Your task to perform on an android device: Clear the shopping cart on newegg. Add apple airpods pro to the cart on newegg, then select checkout. Image 0: 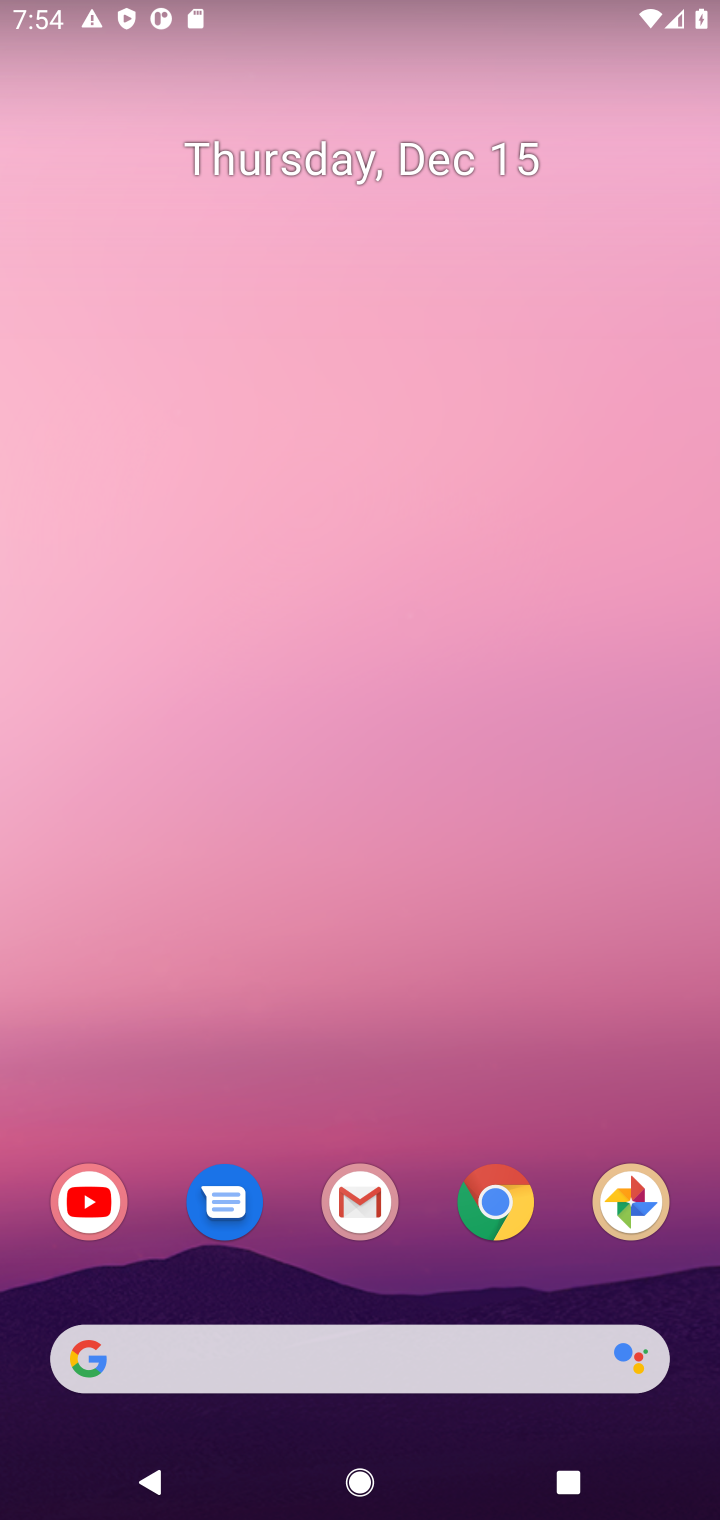
Step 0: click (498, 1208)
Your task to perform on an android device: Clear the shopping cart on newegg. Add apple airpods pro to the cart on newegg, then select checkout. Image 1: 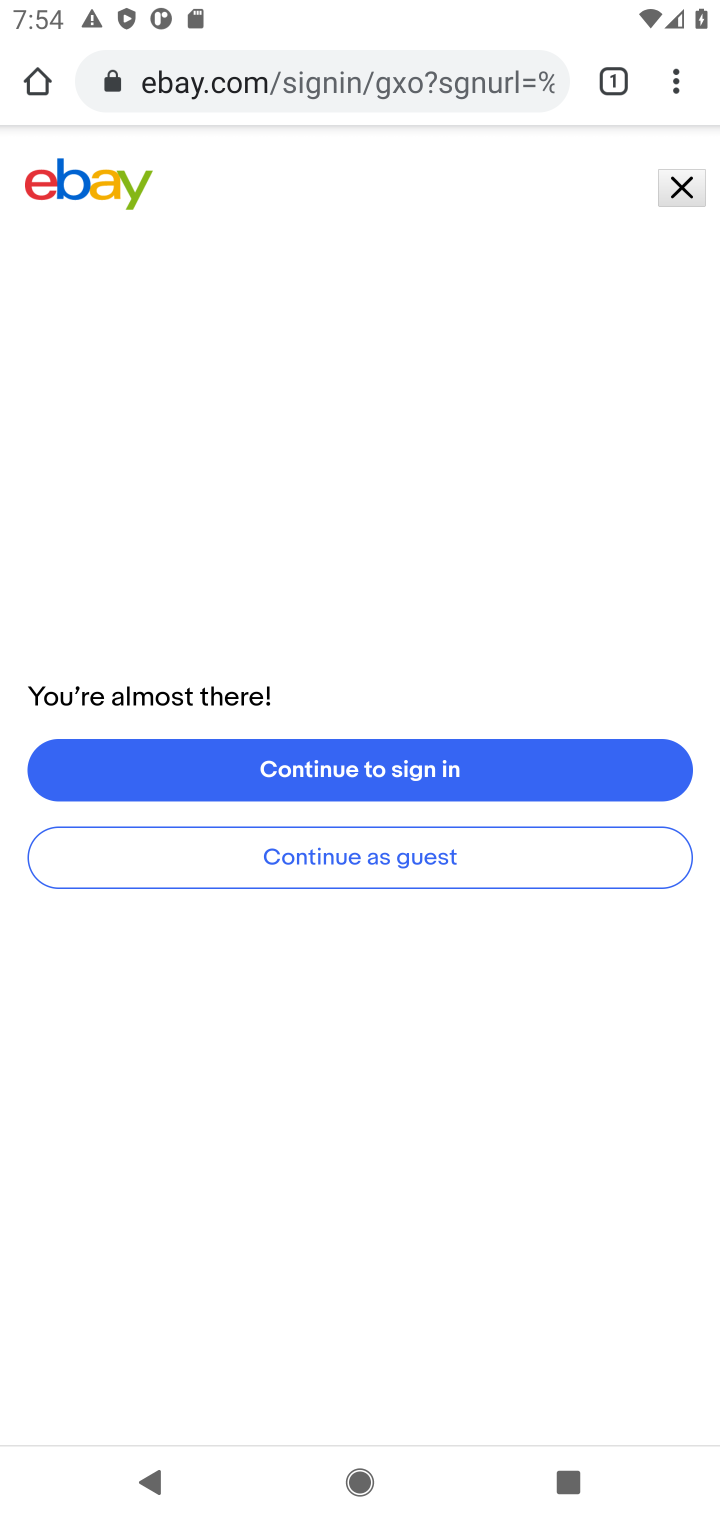
Step 1: click (191, 82)
Your task to perform on an android device: Clear the shopping cart on newegg. Add apple airpods pro to the cart on newegg, then select checkout. Image 2: 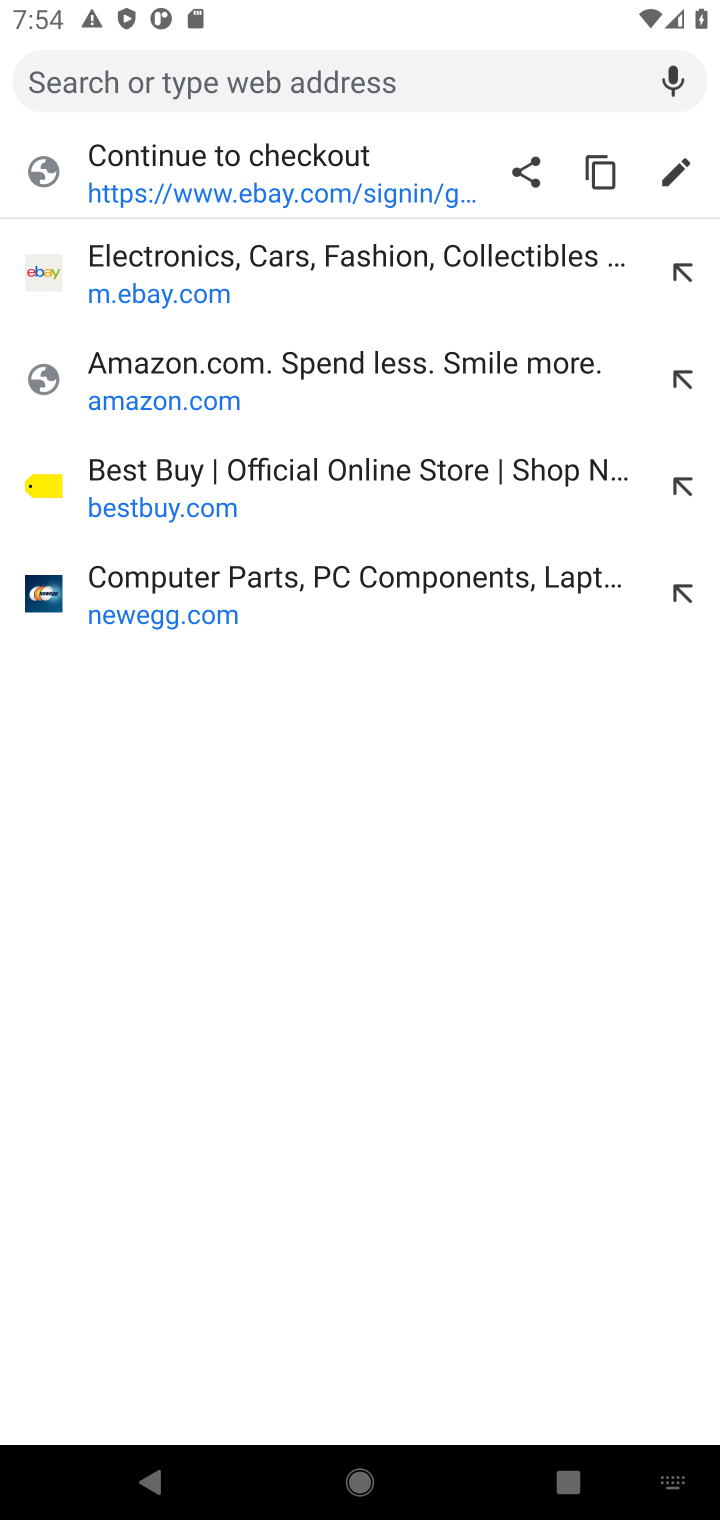
Step 2: click (167, 584)
Your task to perform on an android device: Clear the shopping cart on newegg. Add apple airpods pro to the cart on newegg, then select checkout. Image 3: 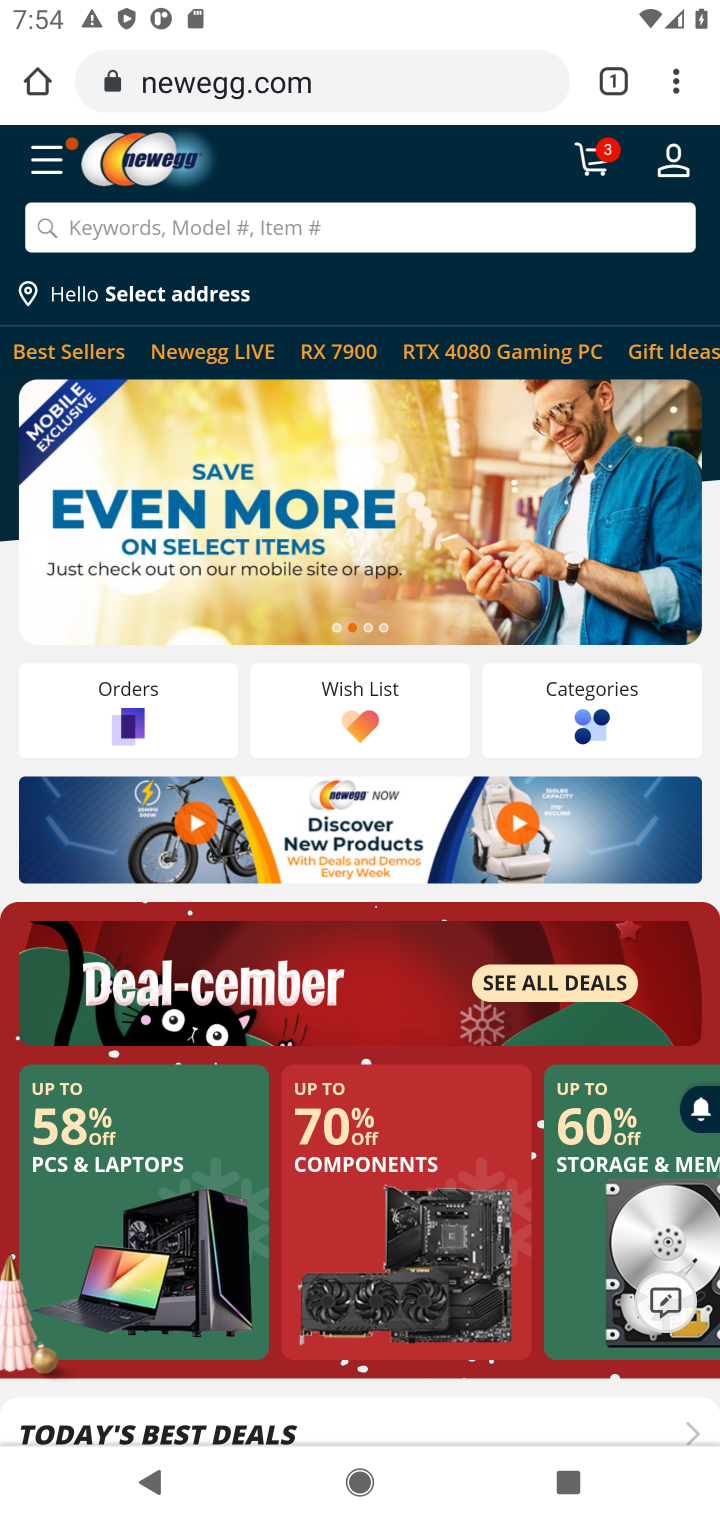
Step 3: click (605, 166)
Your task to perform on an android device: Clear the shopping cart on newegg. Add apple airpods pro to the cart on newegg, then select checkout. Image 4: 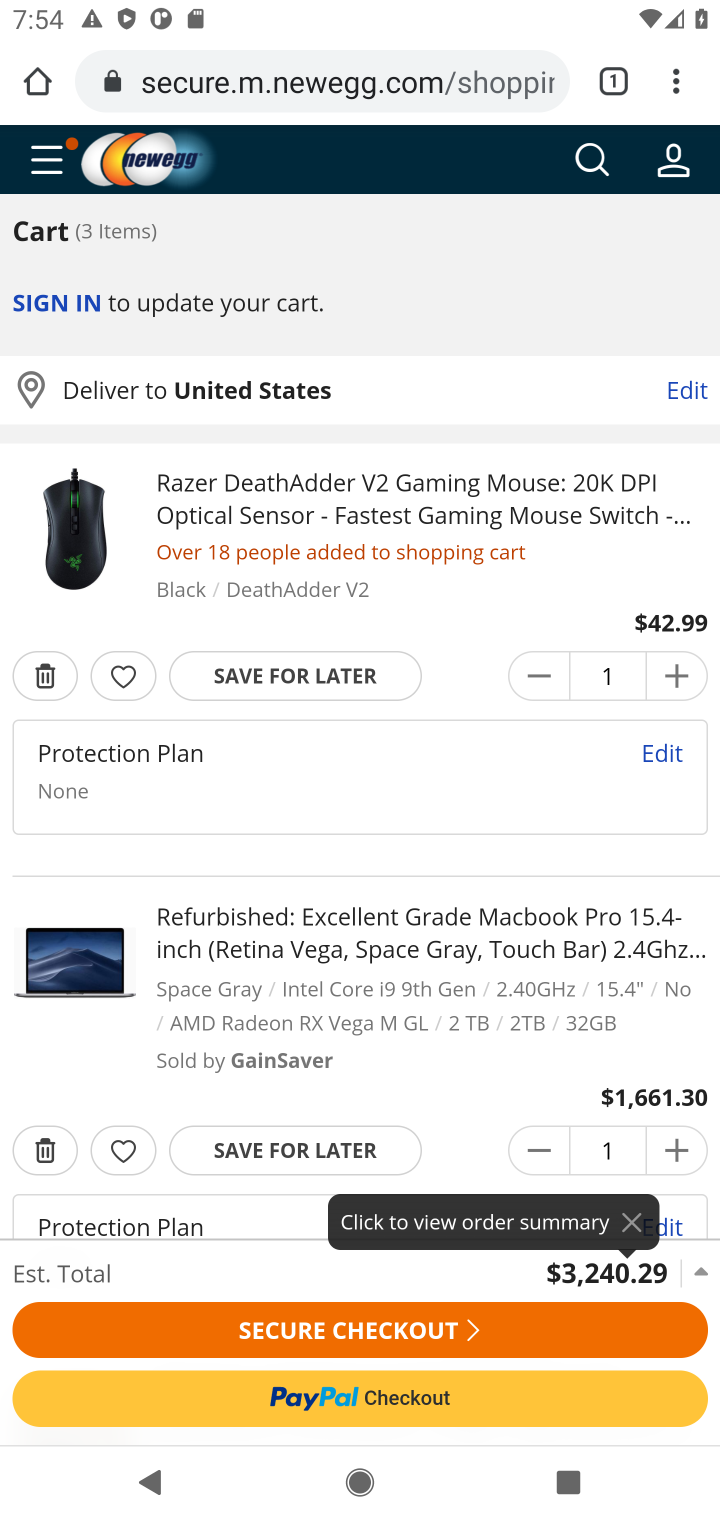
Step 4: click (50, 668)
Your task to perform on an android device: Clear the shopping cart on newegg. Add apple airpods pro to the cart on newegg, then select checkout. Image 5: 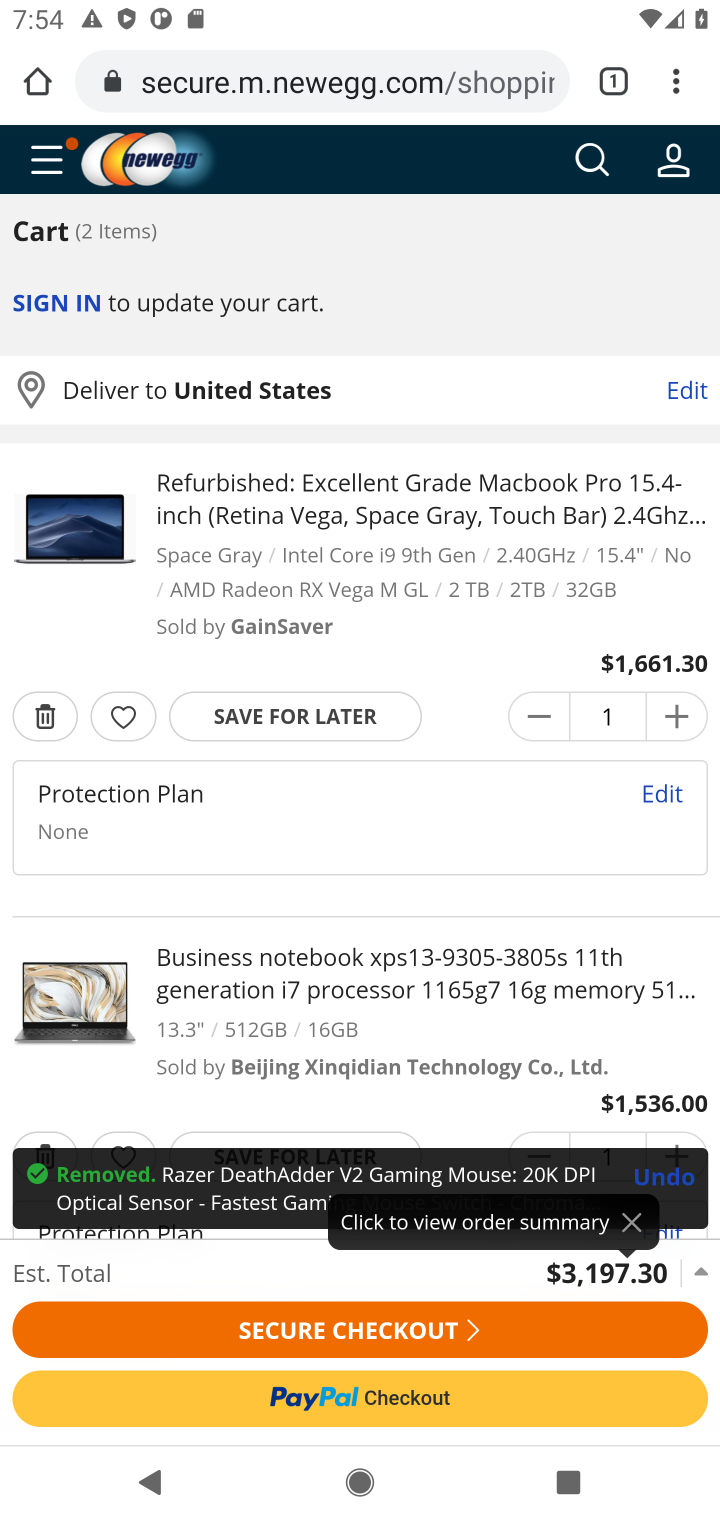
Step 5: click (42, 717)
Your task to perform on an android device: Clear the shopping cart on newegg. Add apple airpods pro to the cart on newegg, then select checkout. Image 6: 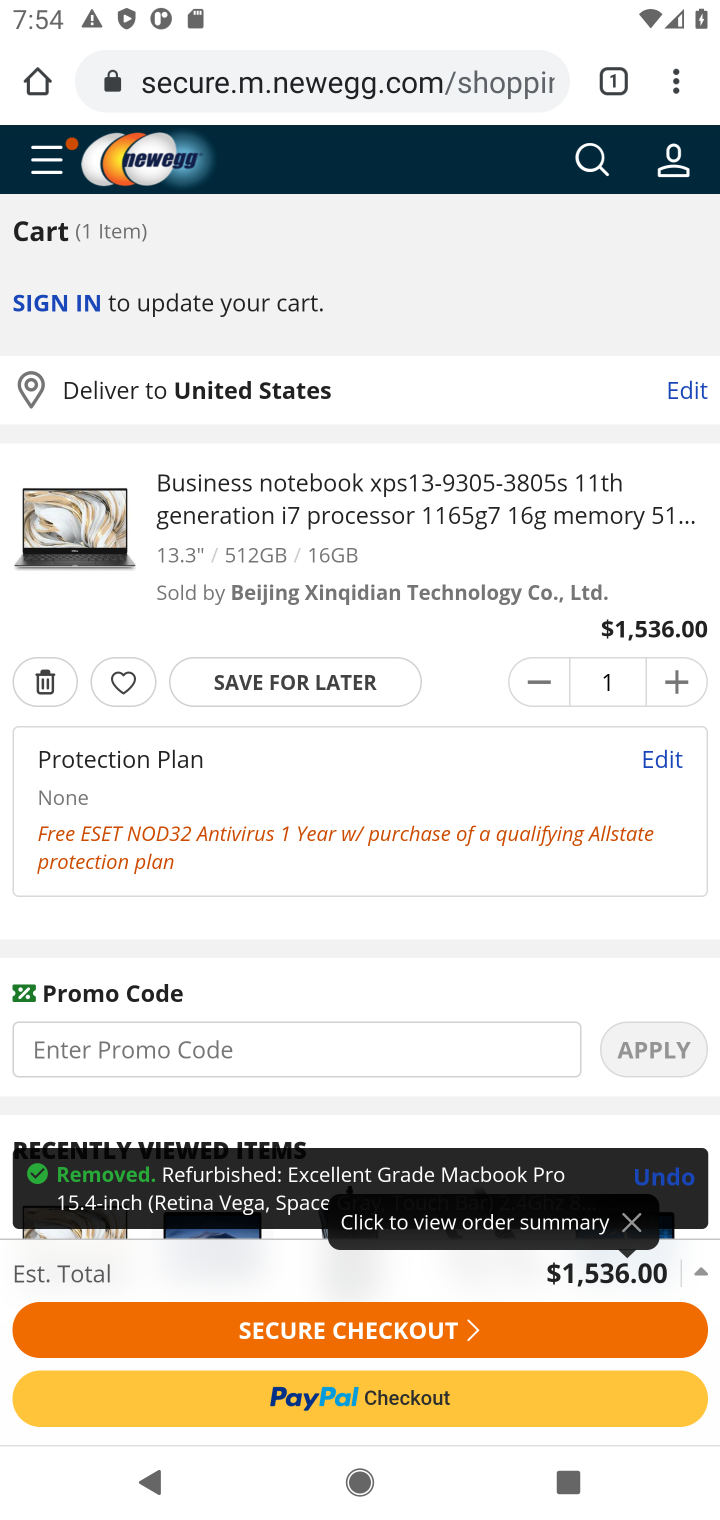
Step 6: click (42, 684)
Your task to perform on an android device: Clear the shopping cart on newegg. Add apple airpods pro to the cart on newegg, then select checkout. Image 7: 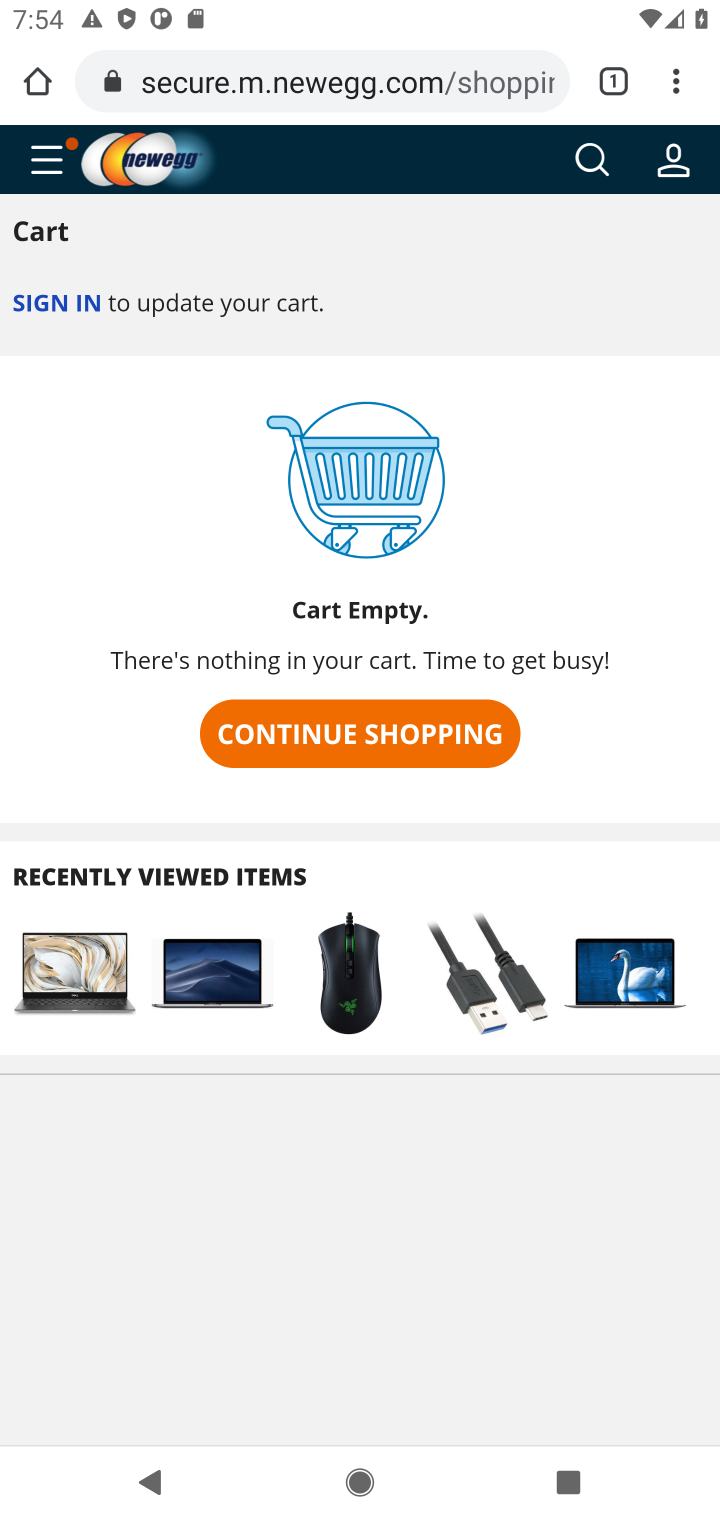
Step 7: click (590, 171)
Your task to perform on an android device: Clear the shopping cart on newegg. Add apple airpods pro to the cart on newegg, then select checkout. Image 8: 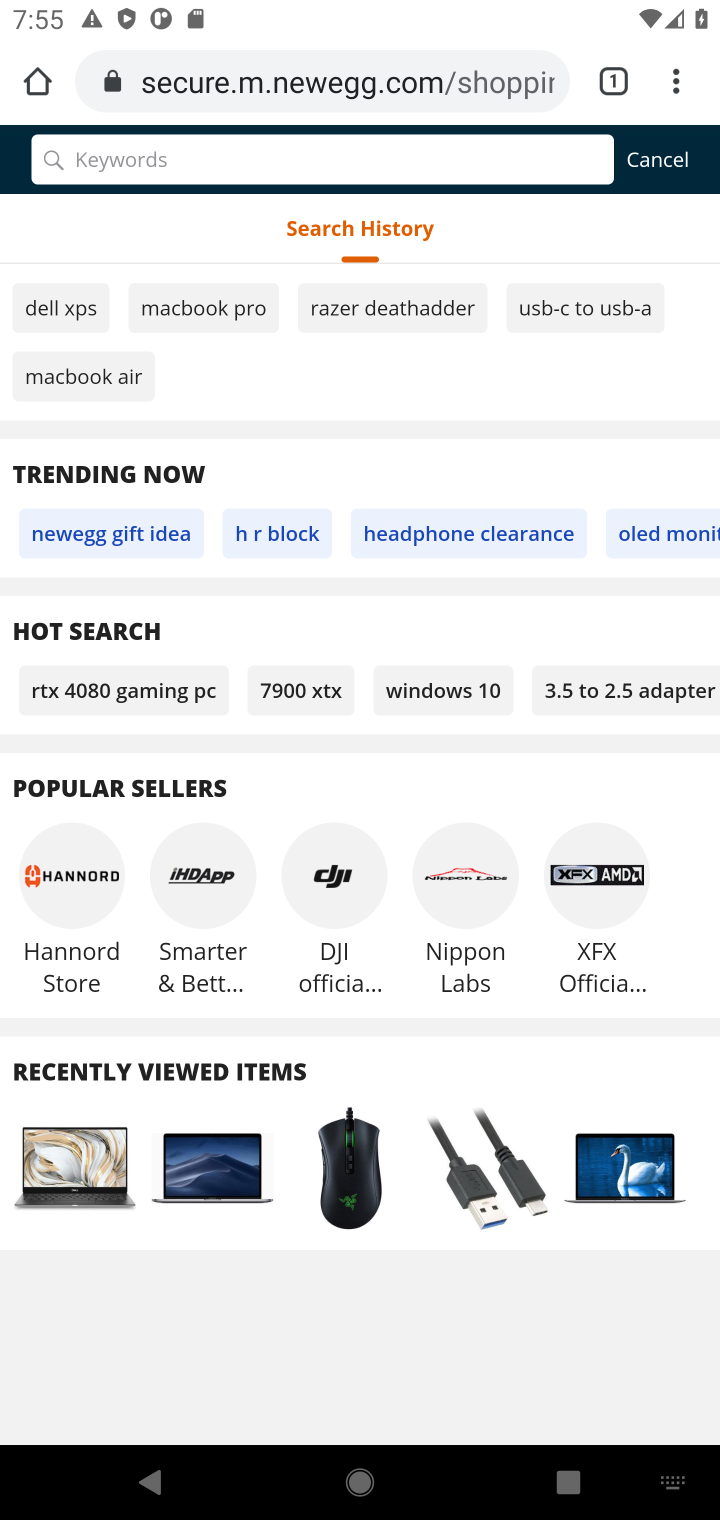
Step 8: type "apple airpods pro"
Your task to perform on an android device: Clear the shopping cart on newegg. Add apple airpods pro to the cart on newegg, then select checkout. Image 9: 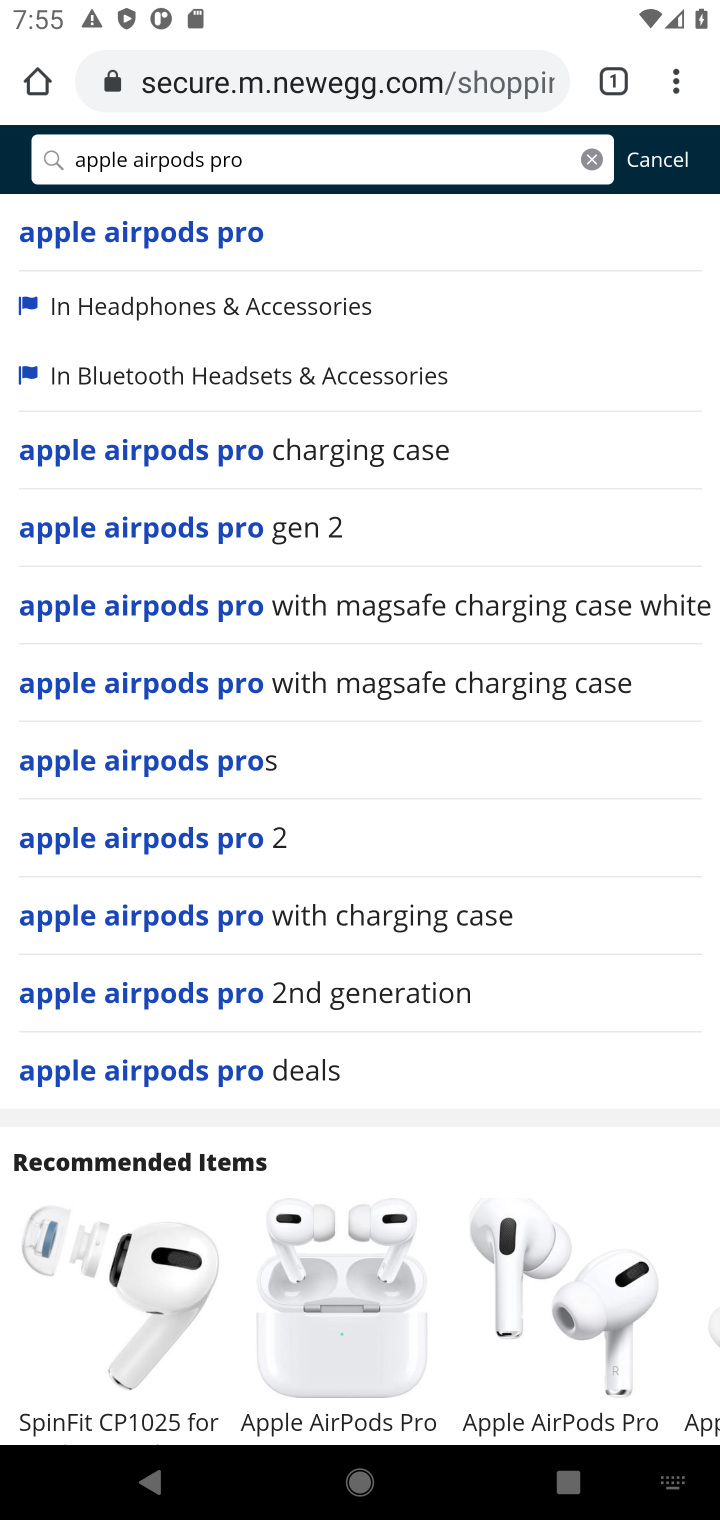
Step 9: click (172, 241)
Your task to perform on an android device: Clear the shopping cart on newegg. Add apple airpods pro to the cart on newegg, then select checkout. Image 10: 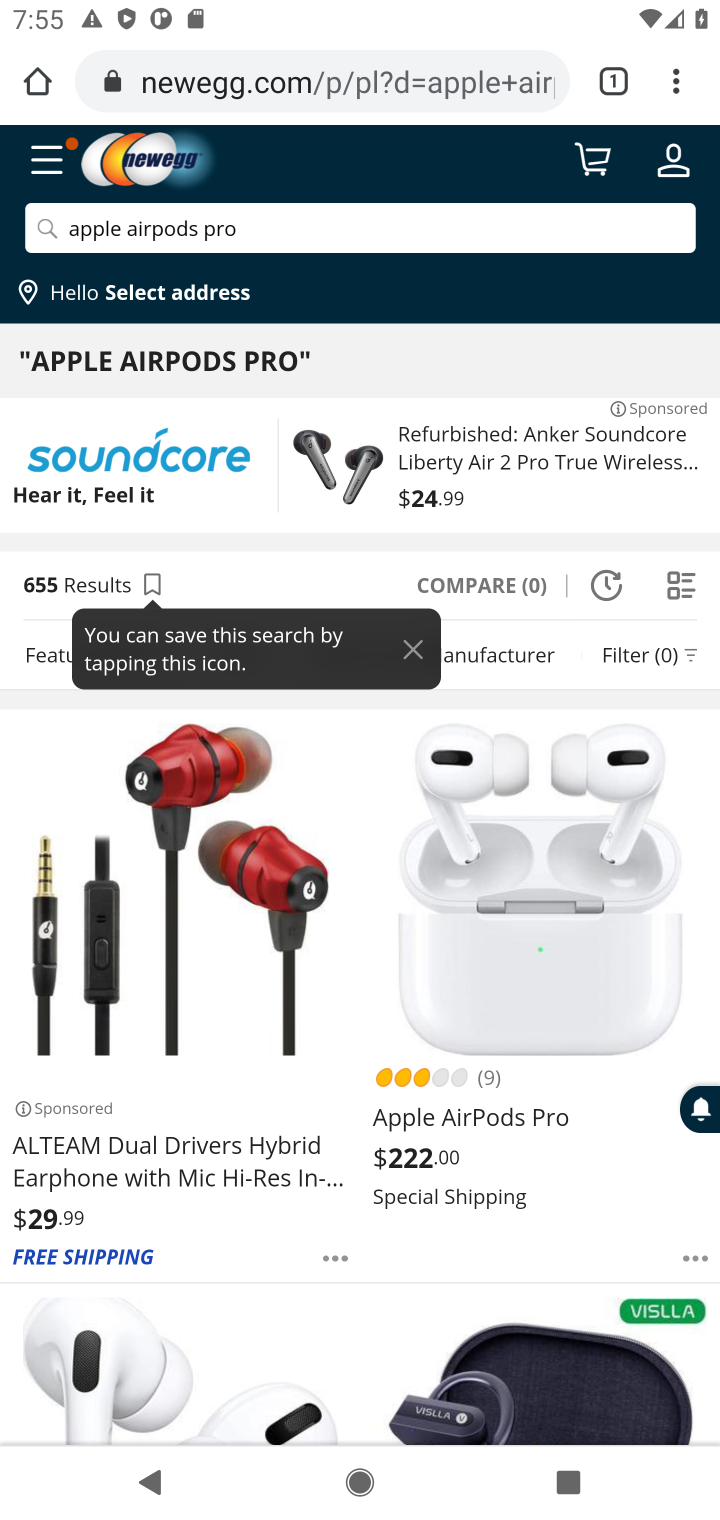
Step 10: click (515, 1050)
Your task to perform on an android device: Clear the shopping cart on newegg. Add apple airpods pro to the cart on newegg, then select checkout. Image 11: 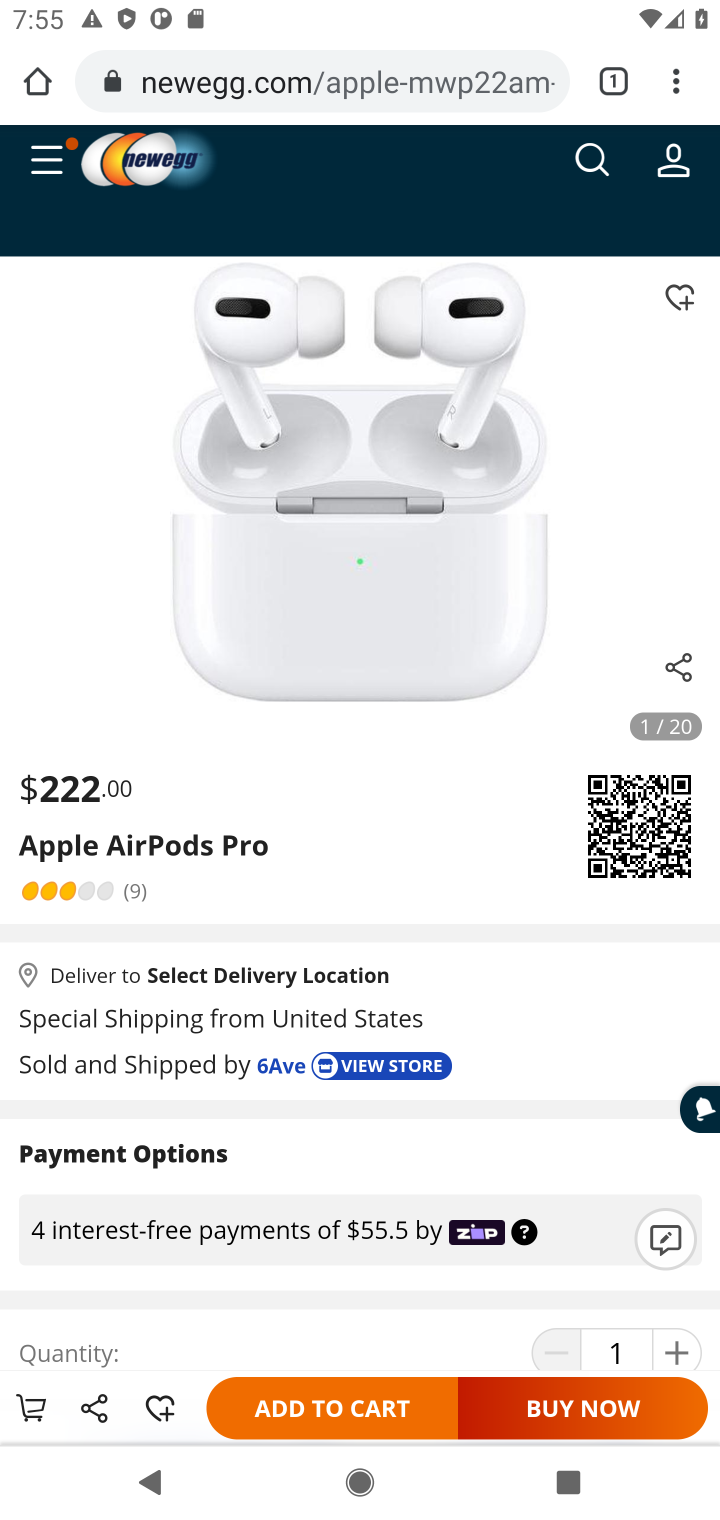
Step 11: click (287, 1400)
Your task to perform on an android device: Clear the shopping cart on newegg. Add apple airpods pro to the cart on newegg, then select checkout. Image 12: 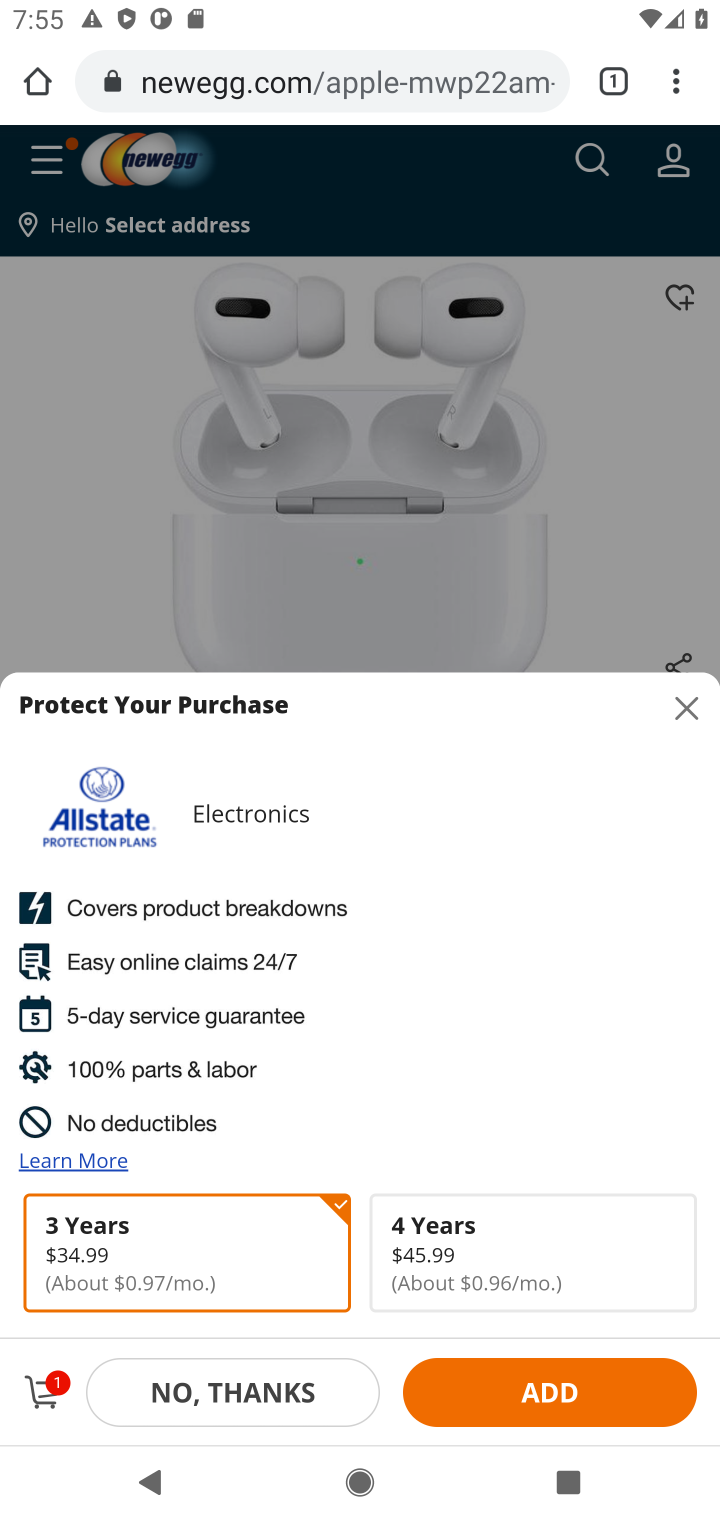
Step 12: click (37, 1391)
Your task to perform on an android device: Clear the shopping cart on newegg. Add apple airpods pro to the cart on newegg, then select checkout. Image 13: 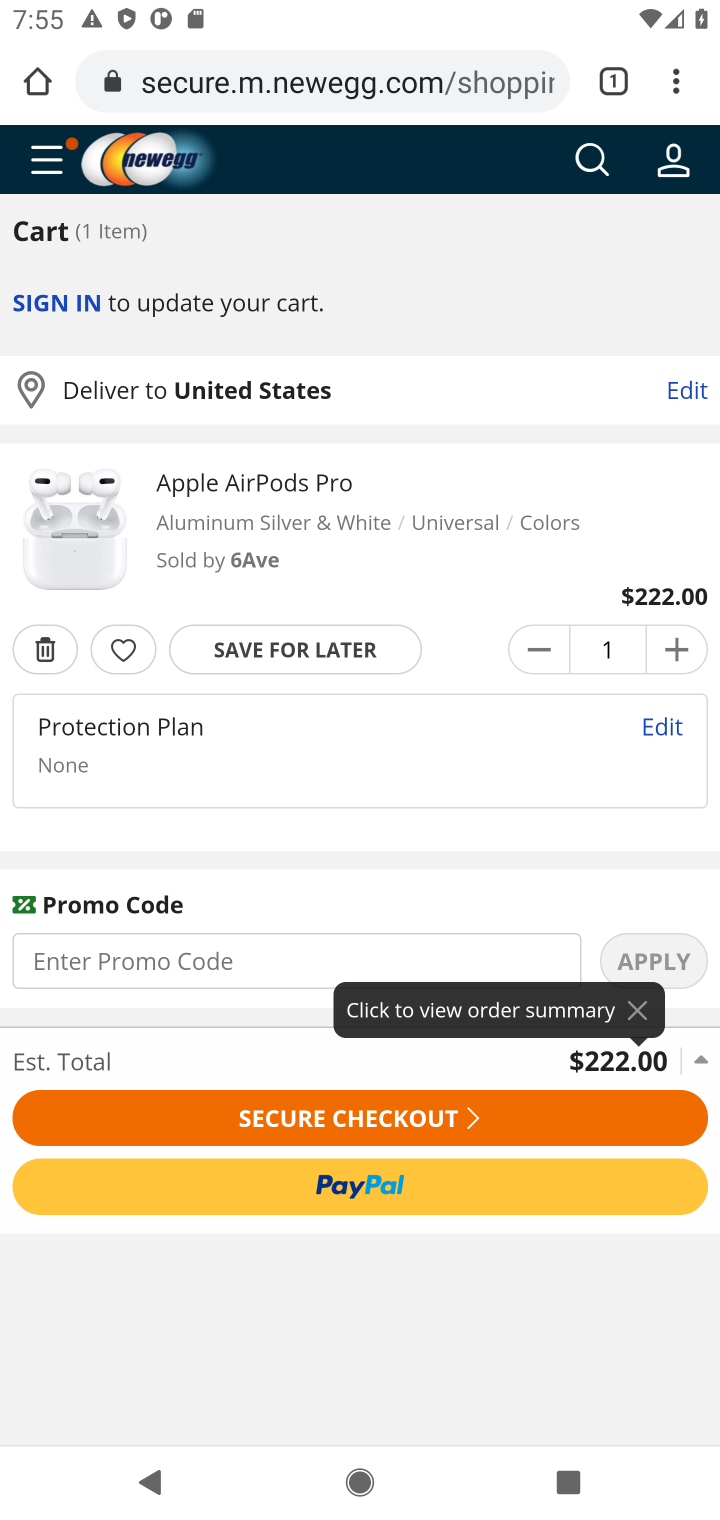
Step 13: click (305, 1123)
Your task to perform on an android device: Clear the shopping cart on newegg. Add apple airpods pro to the cart on newegg, then select checkout. Image 14: 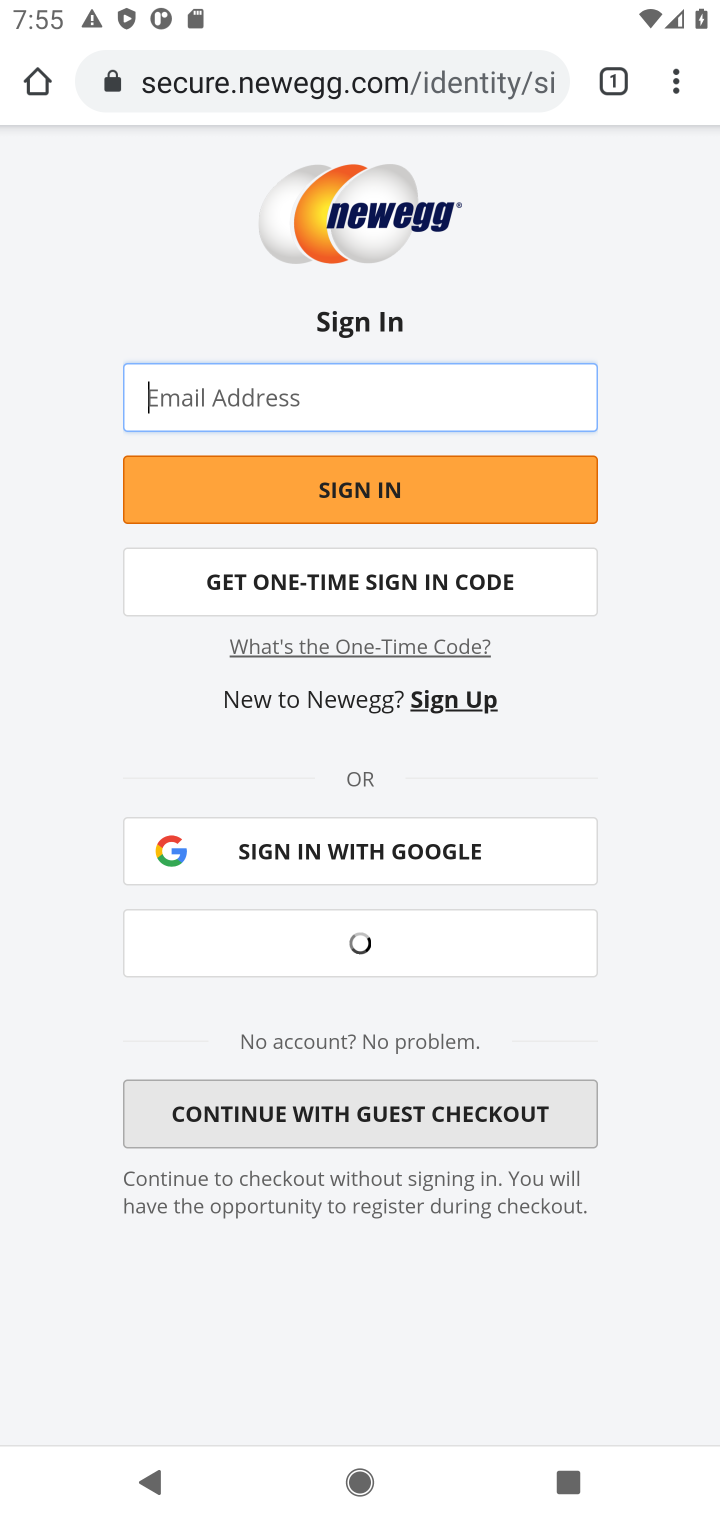
Step 14: task complete